Your task to perform on an android device: open app "Facebook Lite" Image 0: 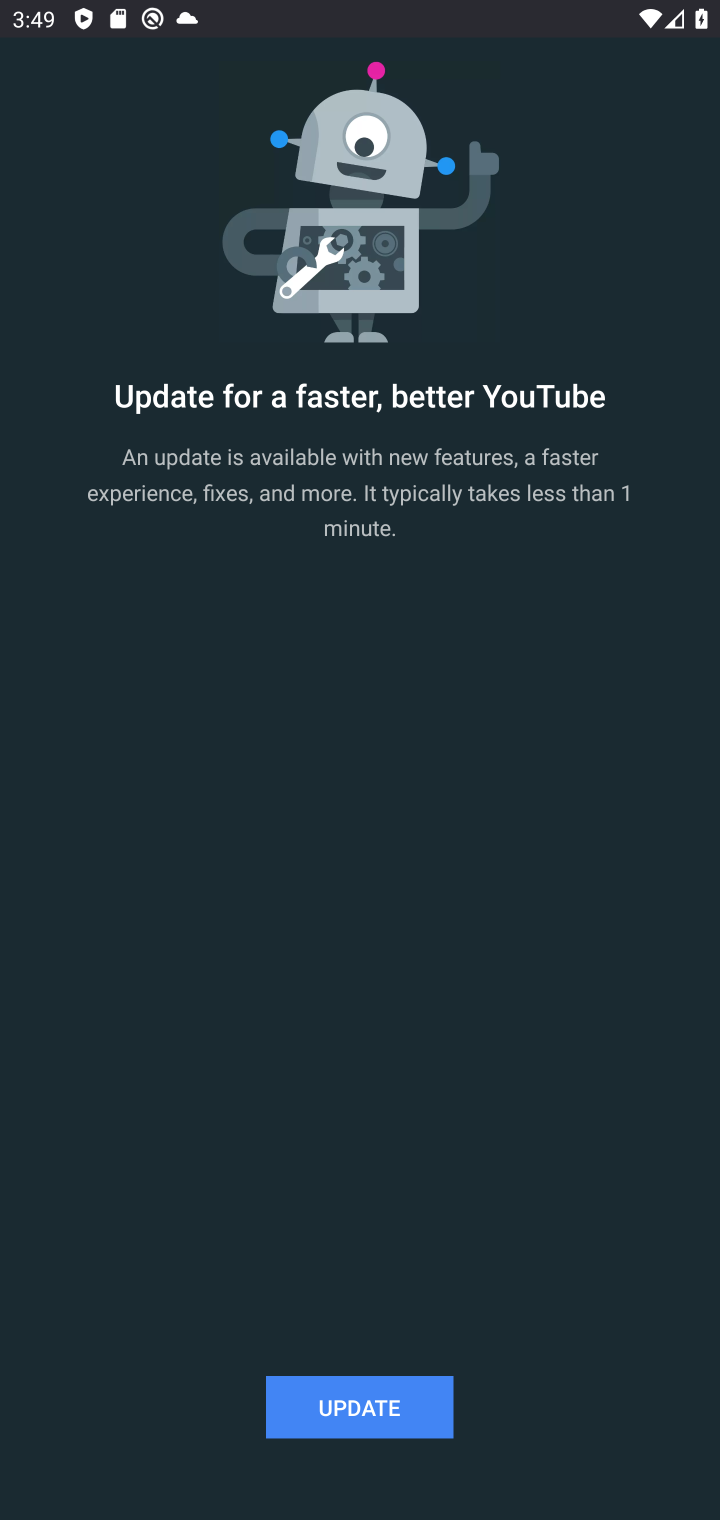
Step 0: press home button
Your task to perform on an android device: open app "Facebook Lite" Image 1: 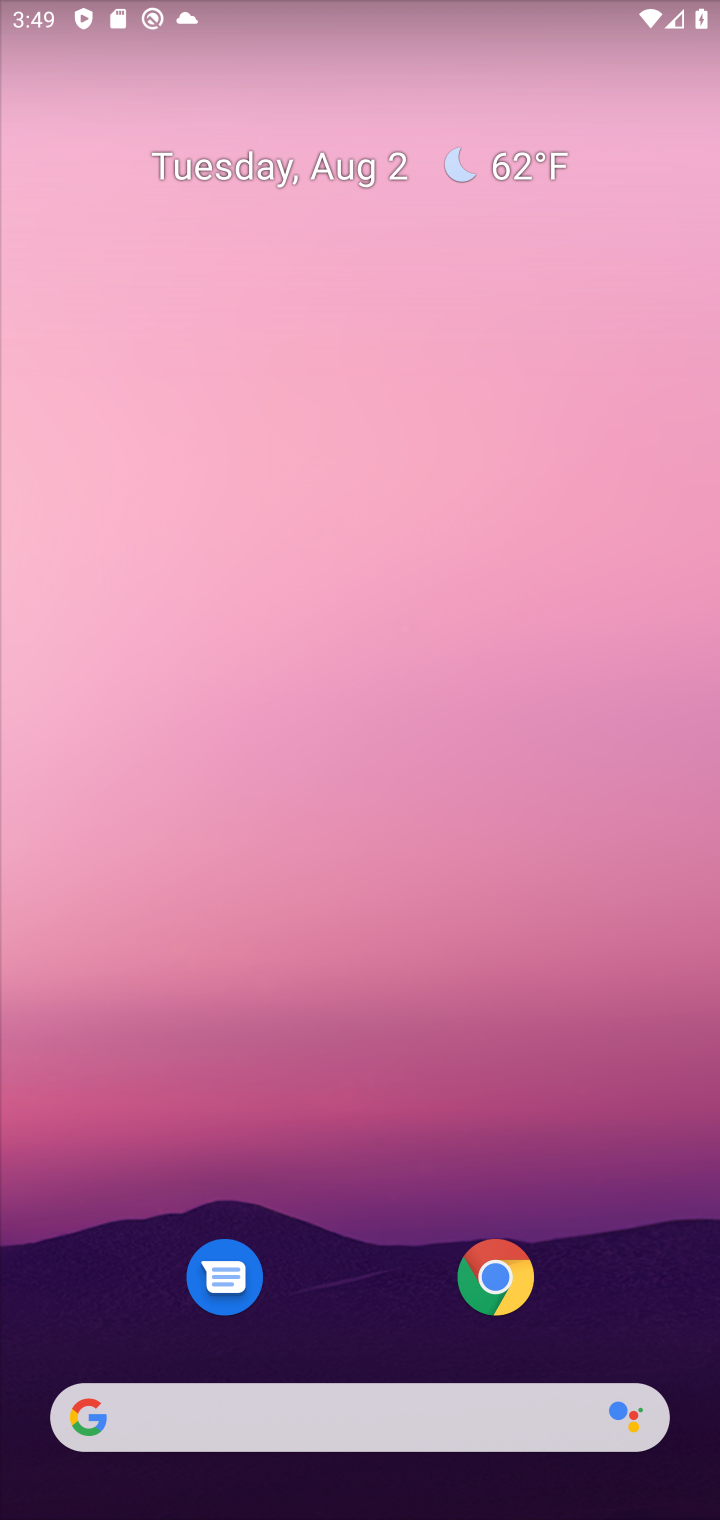
Step 1: drag from (607, 810) to (598, 228)
Your task to perform on an android device: open app "Facebook Lite" Image 2: 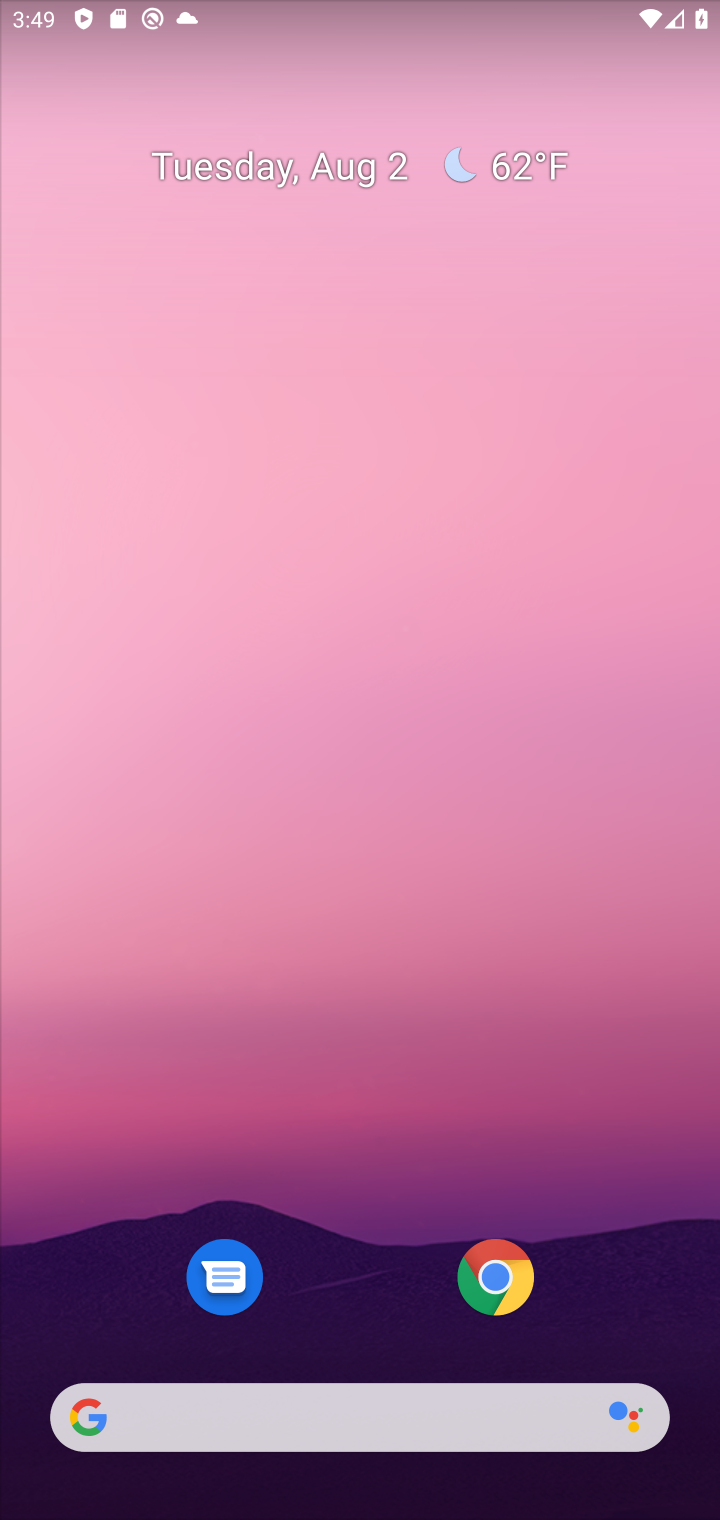
Step 2: drag from (612, 1104) to (635, 115)
Your task to perform on an android device: open app "Facebook Lite" Image 3: 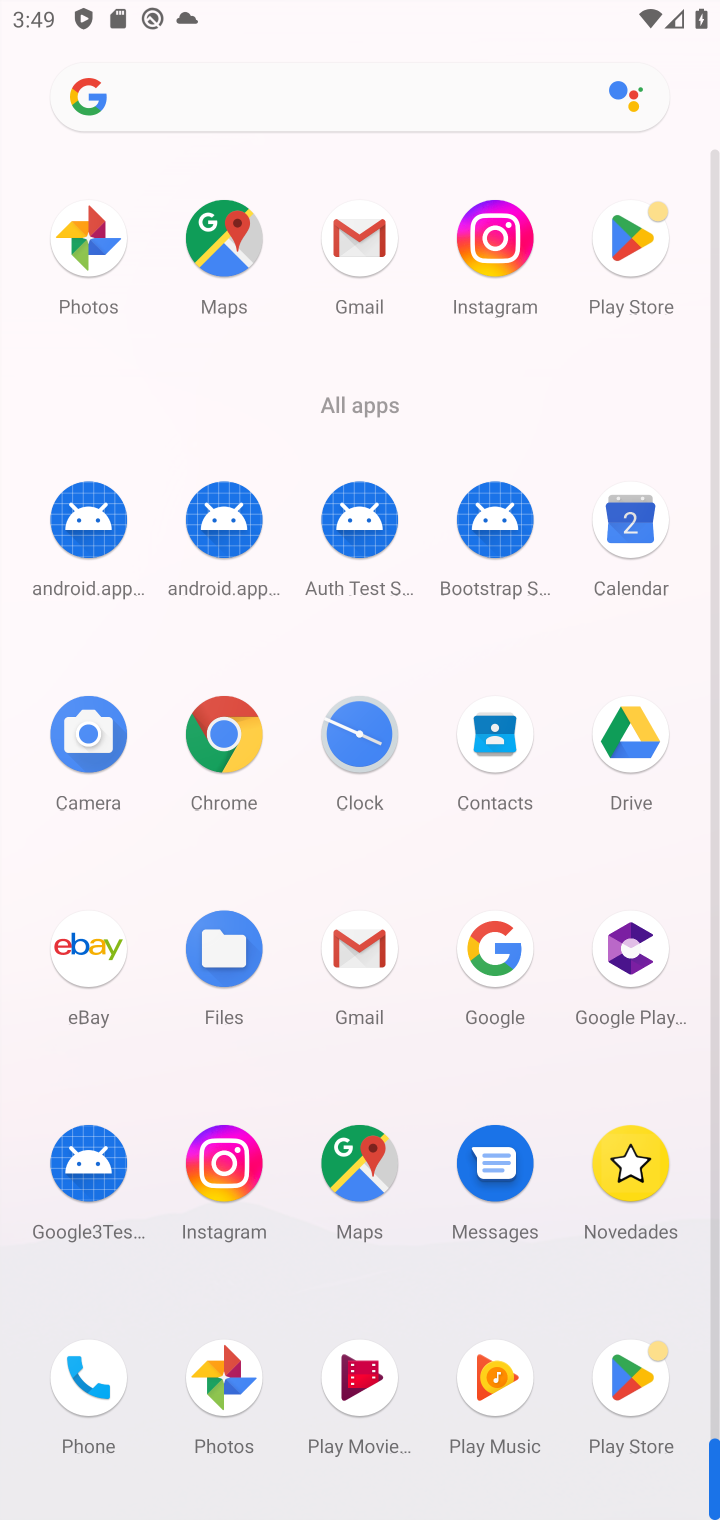
Step 3: drag from (426, 1071) to (479, 256)
Your task to perform on an android device: open app "Facebook Lite" Image 4: 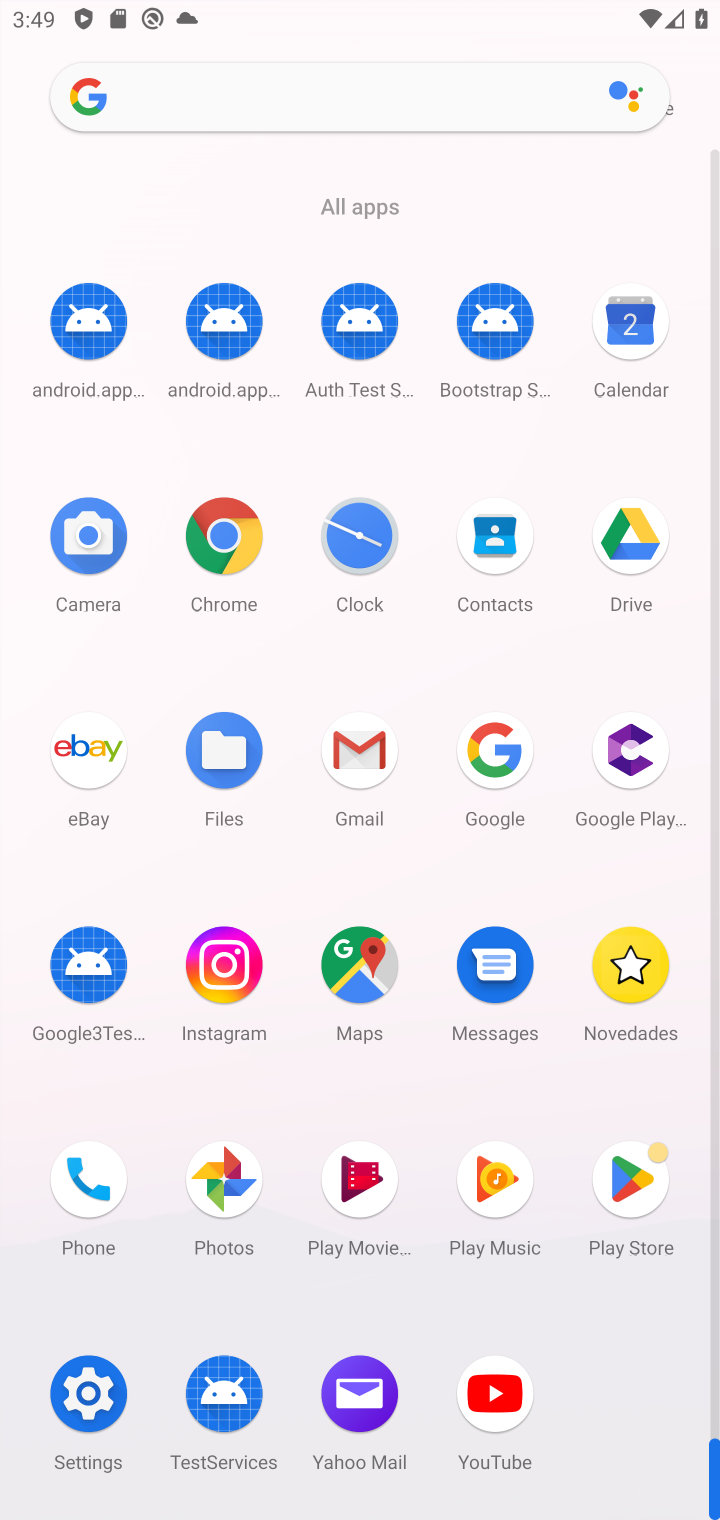
Step 4: click (613, 1191)
Your task to perform on an android device: open app "Facebook Lite" Image 5: 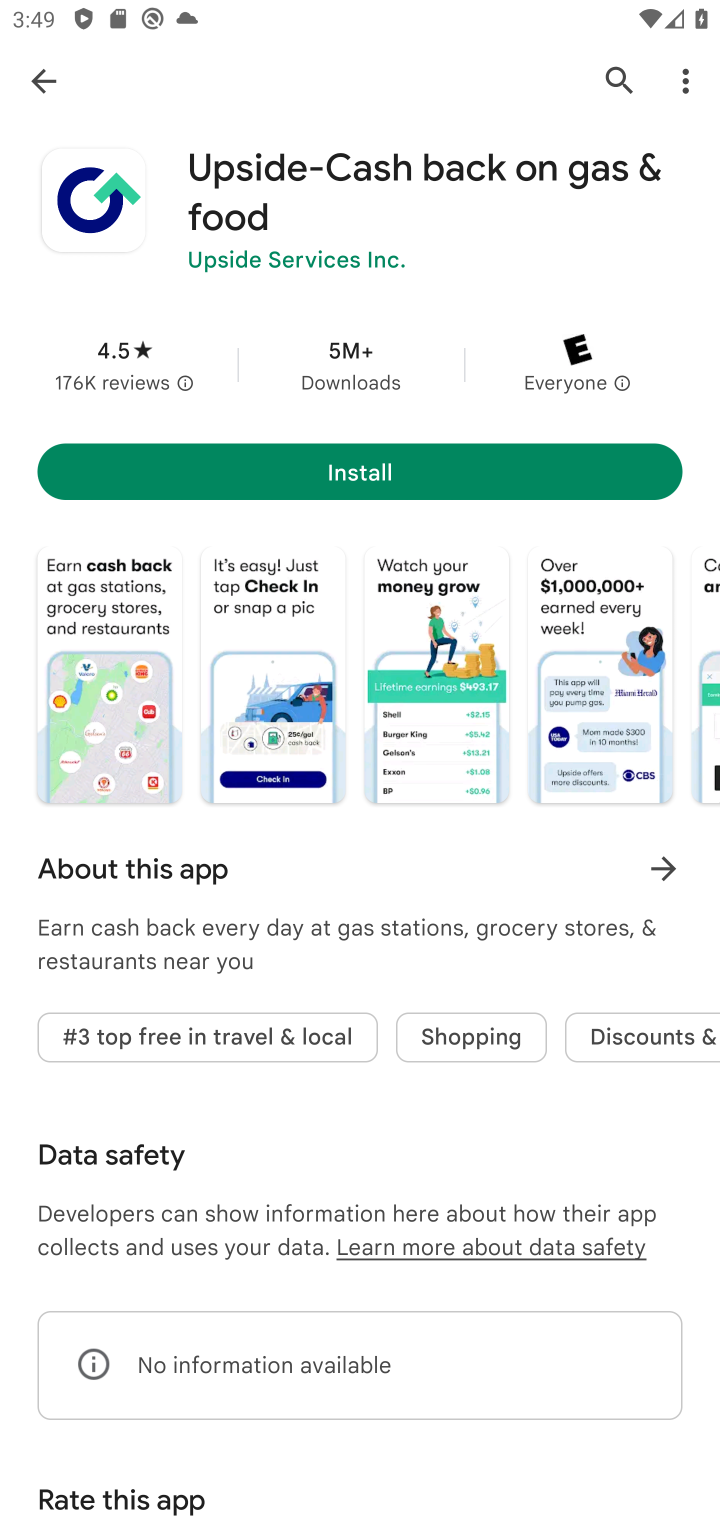
Step 5: click (599, 62)
Your task to perform on an android device: open app "Facebook Lite" Image 6: 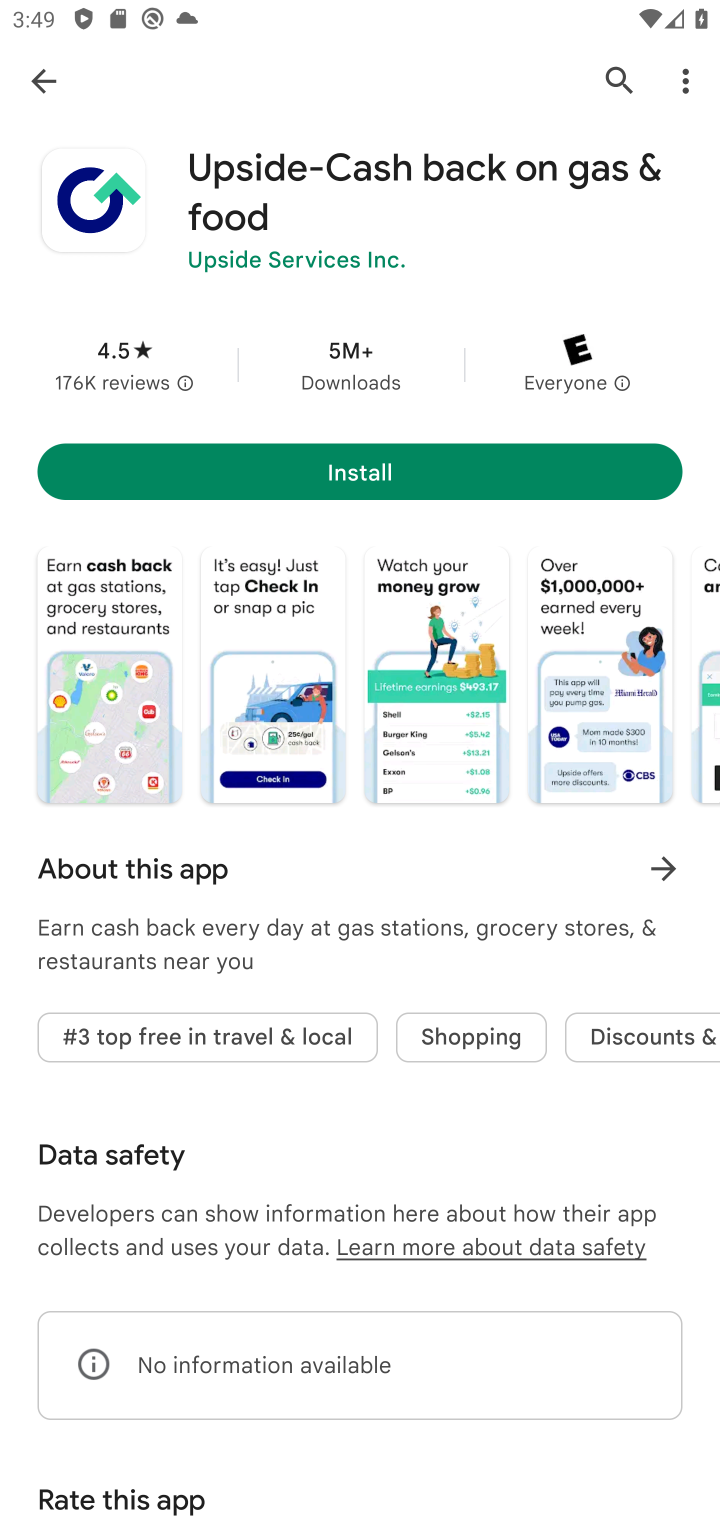
Step 6: click (623, 80)
Your task to perform on an android device: open app "Facebook Lite" Image 7: 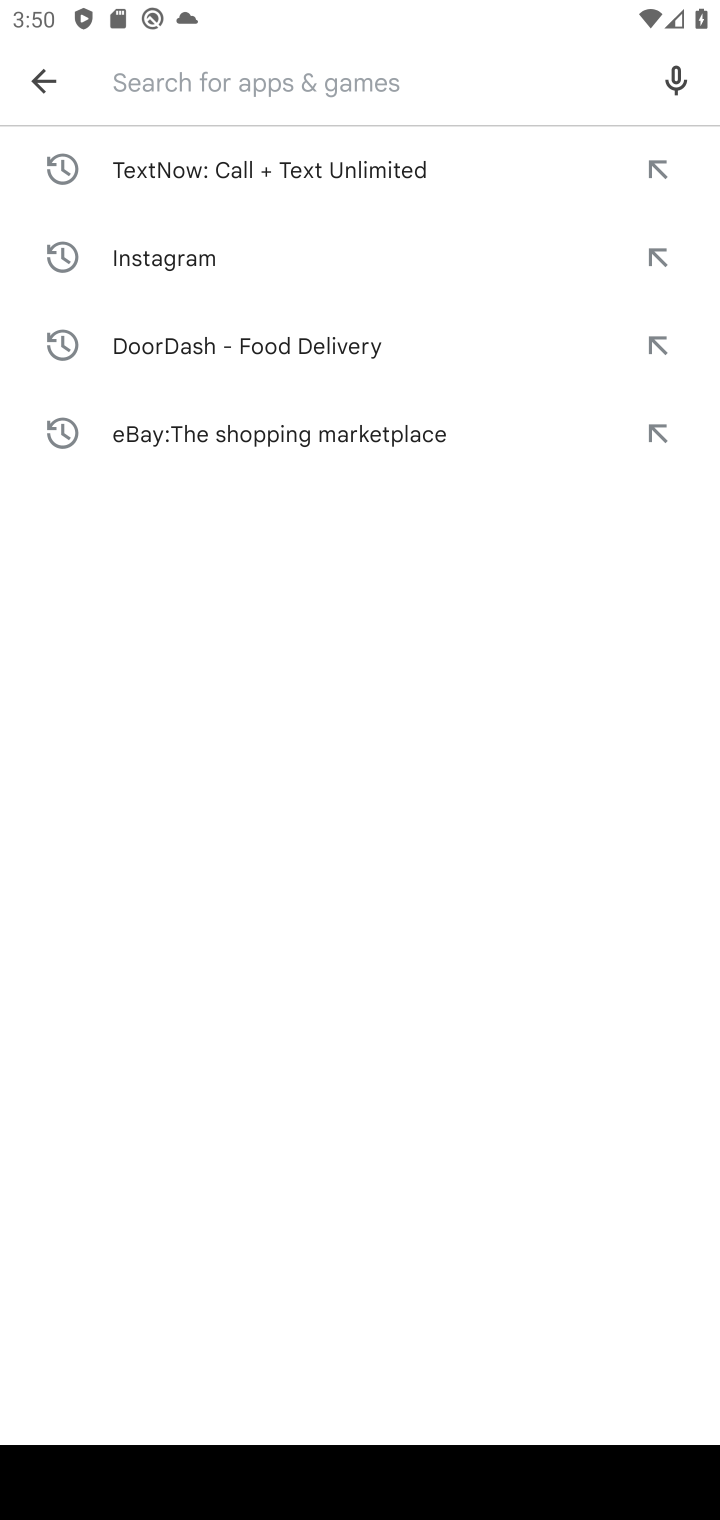
Step 7: type "Fscebook Lite"
Your task to perform on an android device: open app "Facebook Lite" Image 8: 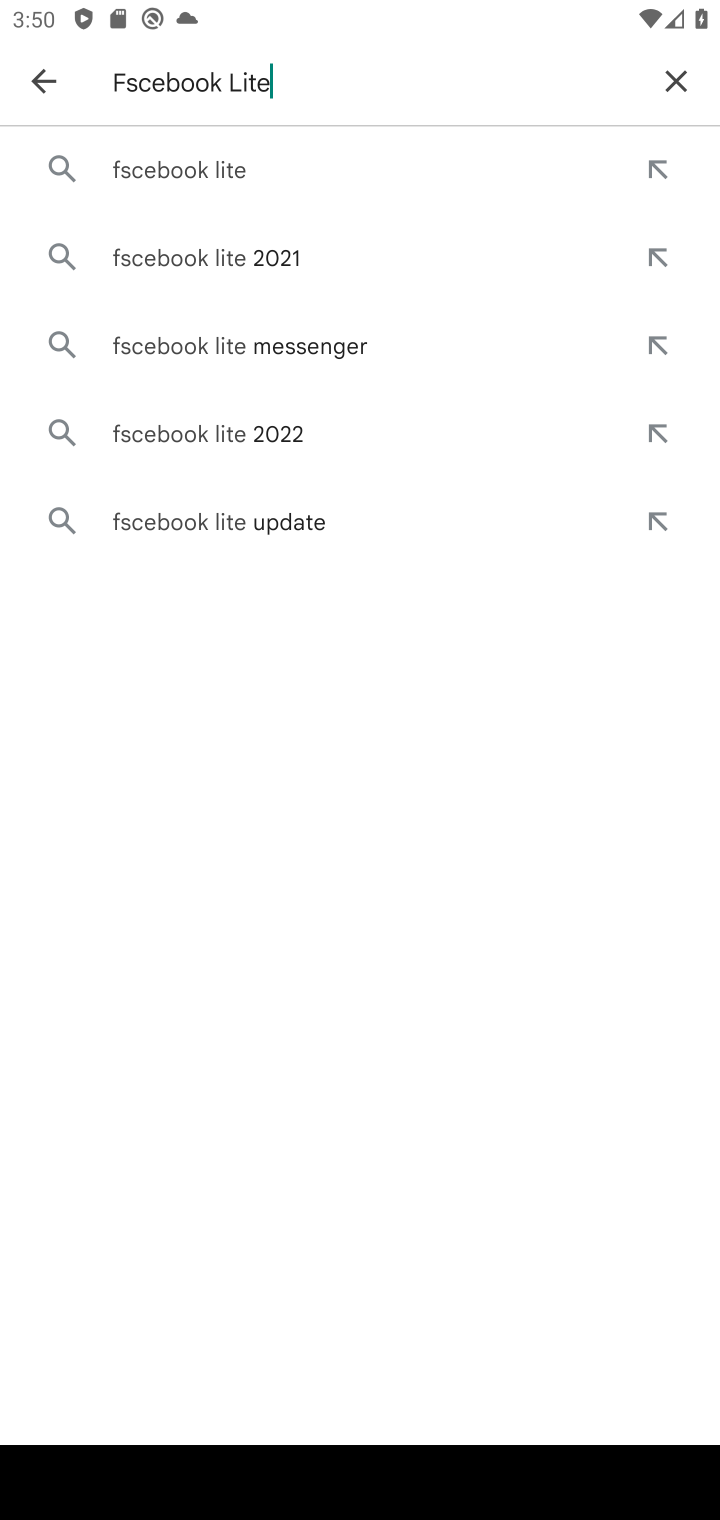
Step 8: press enter
Your task to perform on an android device: open app "Facebook Lite" Image 9: 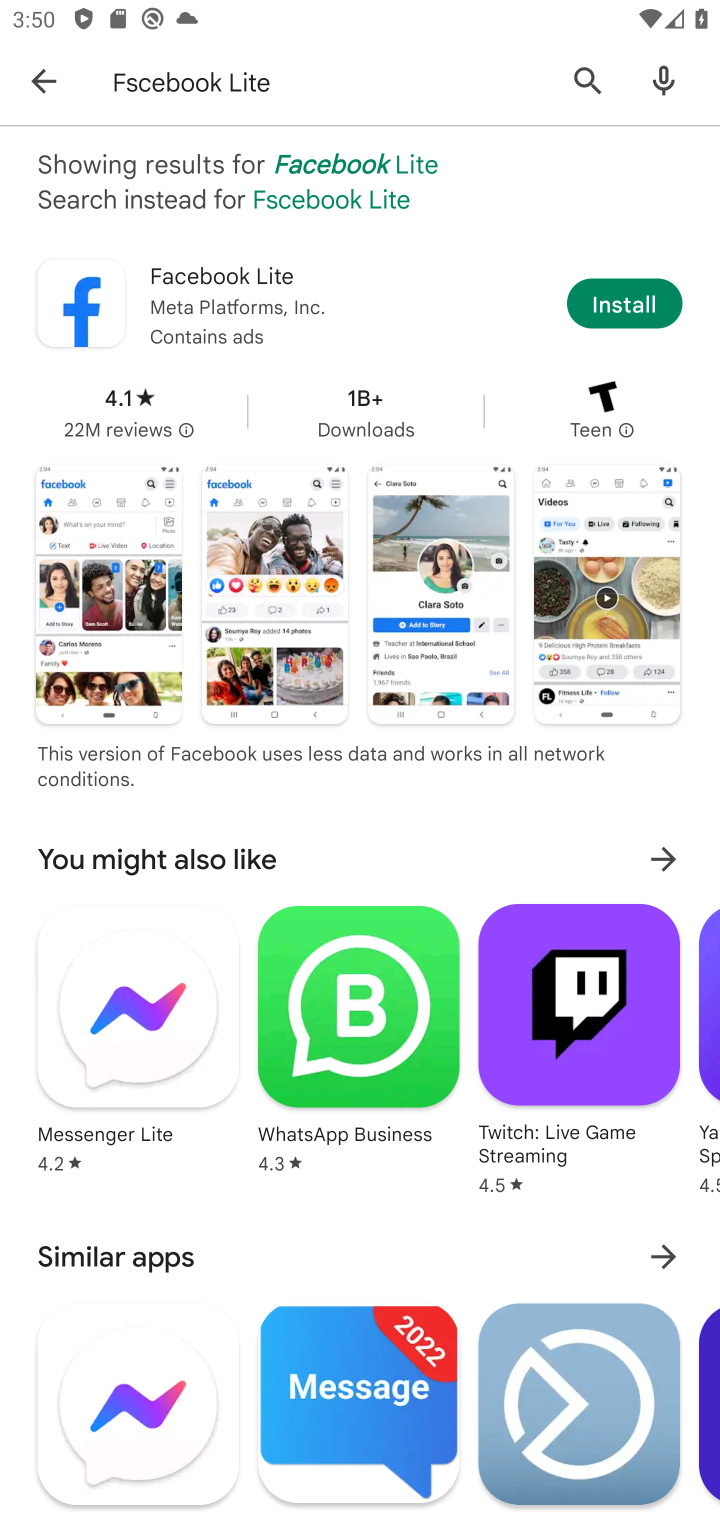
Step 9: task complete